Your task to perform on an android device: change the clock style Image 0: 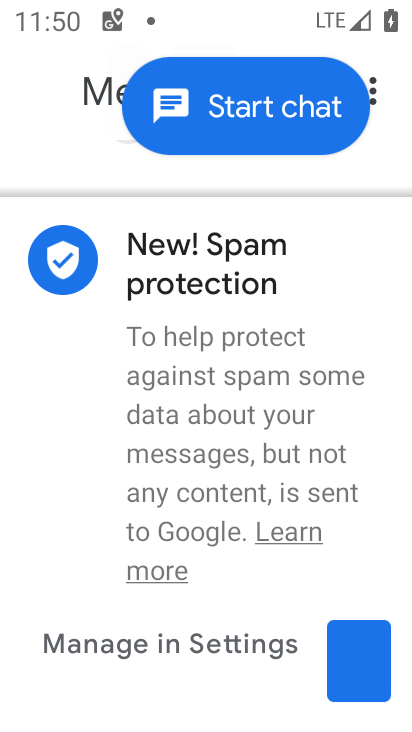
Step 0: press home button
Your task to perform on an android device: change the clock style Image 1: 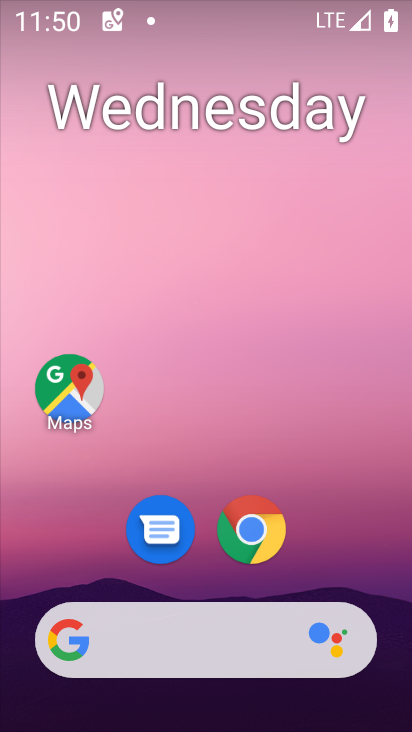
Step 1: drag from (399, 643) to (326, 33)
Your task to perform on an android device: change the clock style Image 2: 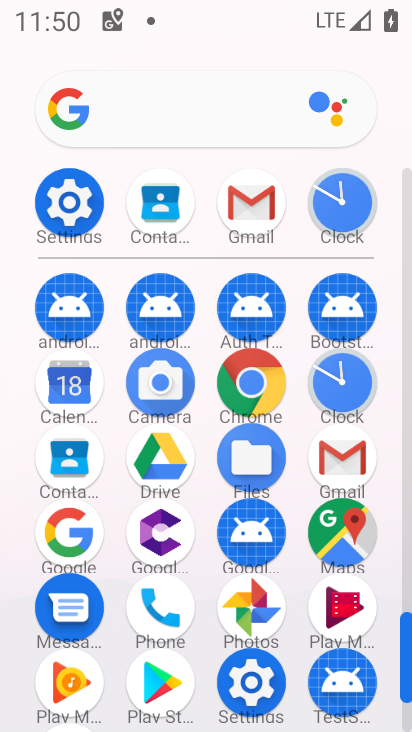
Step 2: click (340, 381)
Your task to perform on an android device: change the clock style Image 3: 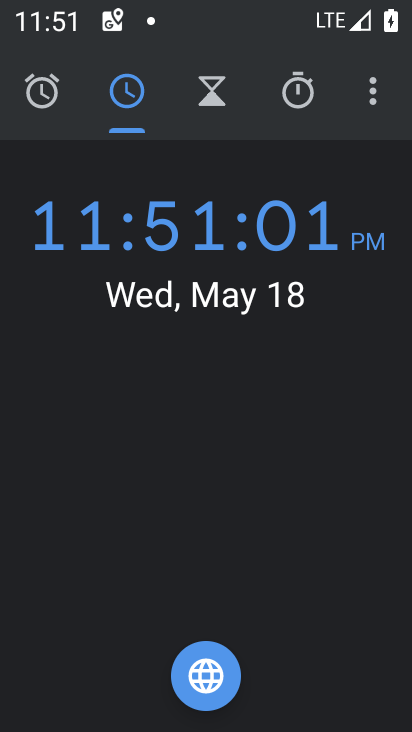
Step 3: click (365, 101)
Your task to perform on an android device: change the clock style Image 4: 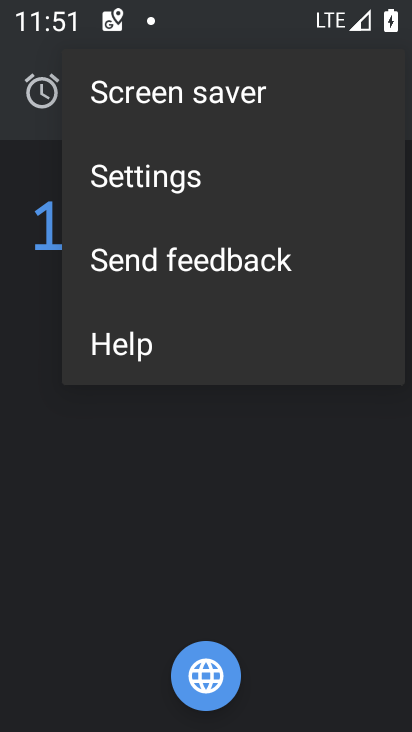
Step 4: click (136, 172)
Your task to perform on an android device: change the clock style Image 5: 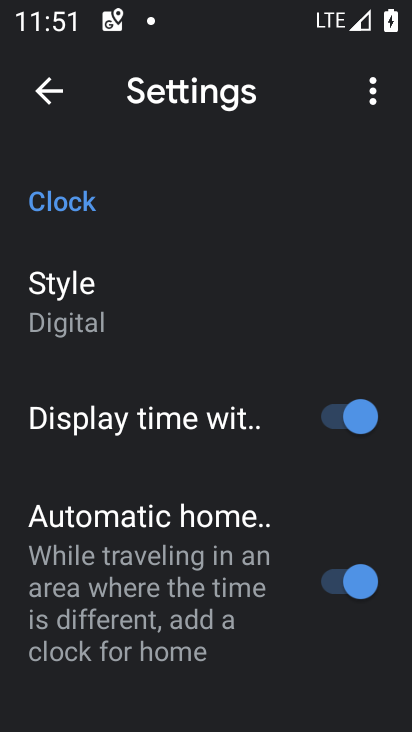
Step 5: click (69, 293)
Your task to perform on an android device: change the clock style Image 6: 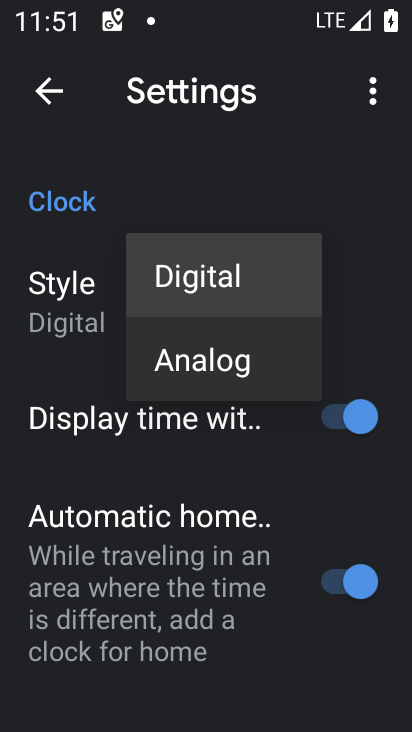
Step 6: click (207, 358)
Your task to perform on an android device: change the clock style Image 7: 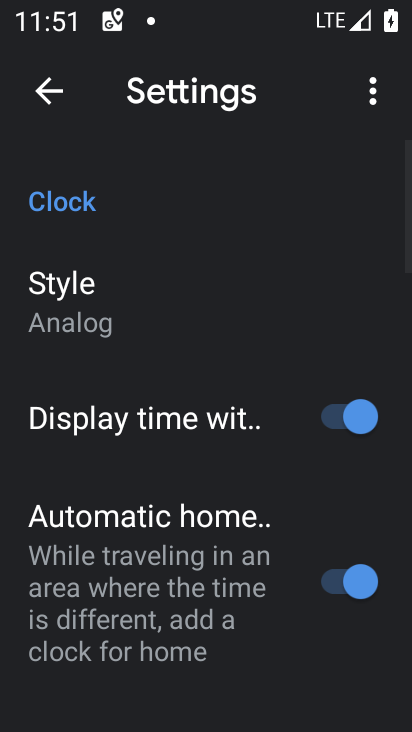
Step 7: task complete